Your task to perform on an android device: Look up the top rated 18v miter saw on Home Depot. Image 0: 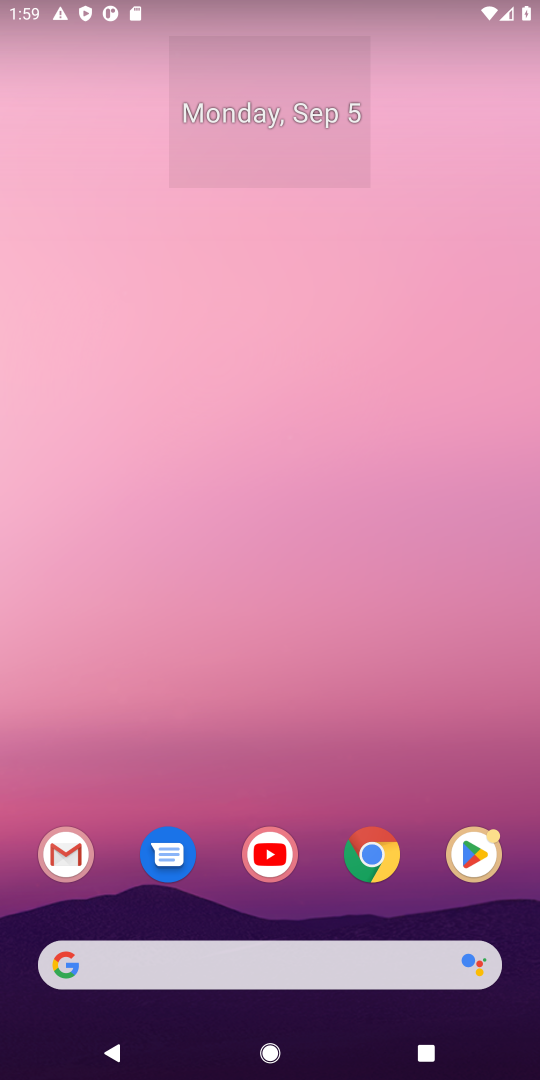
Step 0: click (373, 969)
Your task to perform on an android device: Look up the top rated 18v miter saw on Home Depot. Image 1: 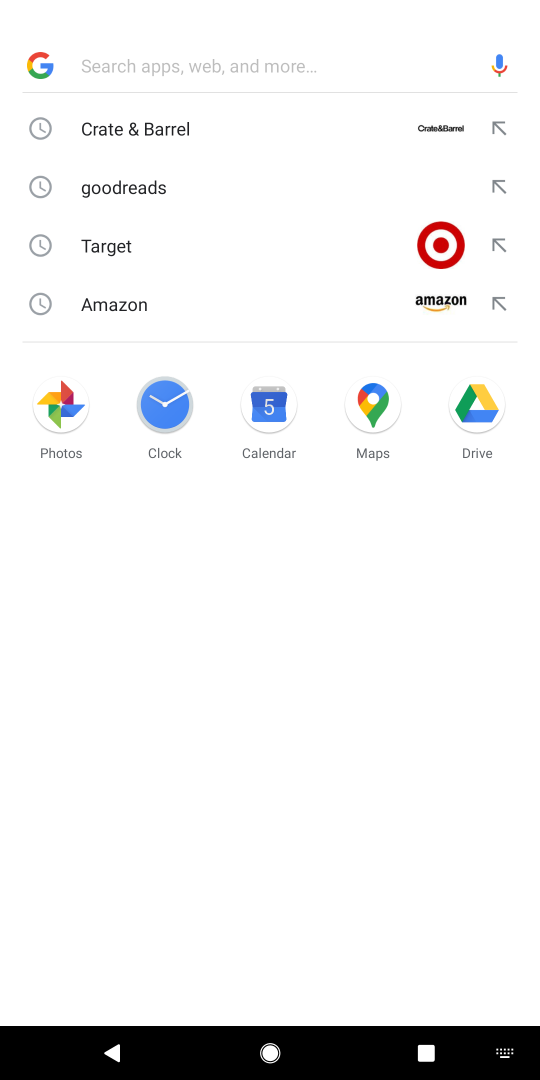
Step 1: press enter
Your task to perform on an android device: Look up the top rated 18v miter saw on Home Depot. Image 2: 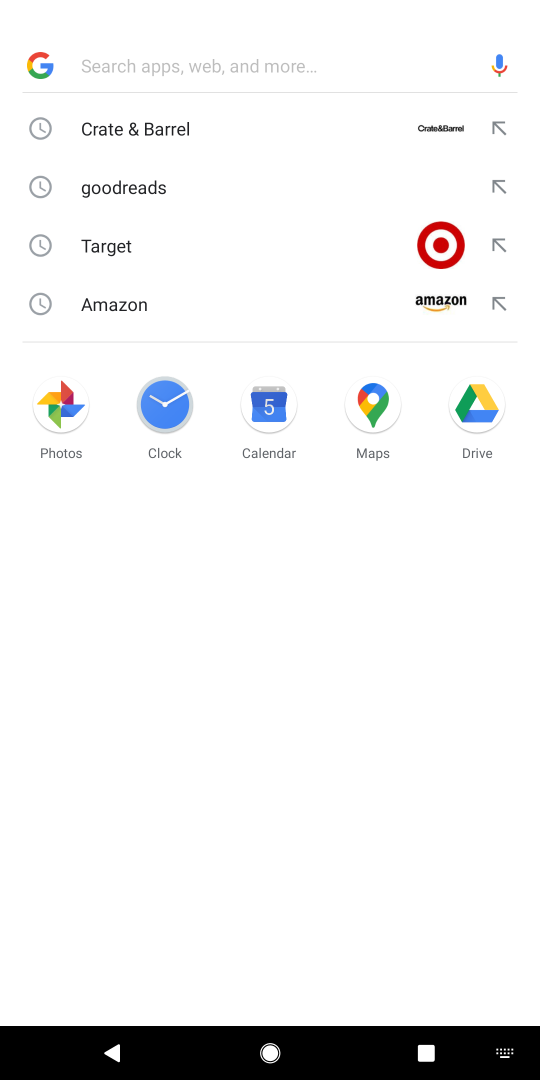
Step 2: type "home depot"
Your task to perform on an android device: Look up the top rated 18v miter saw on Home Depot. Image 3: 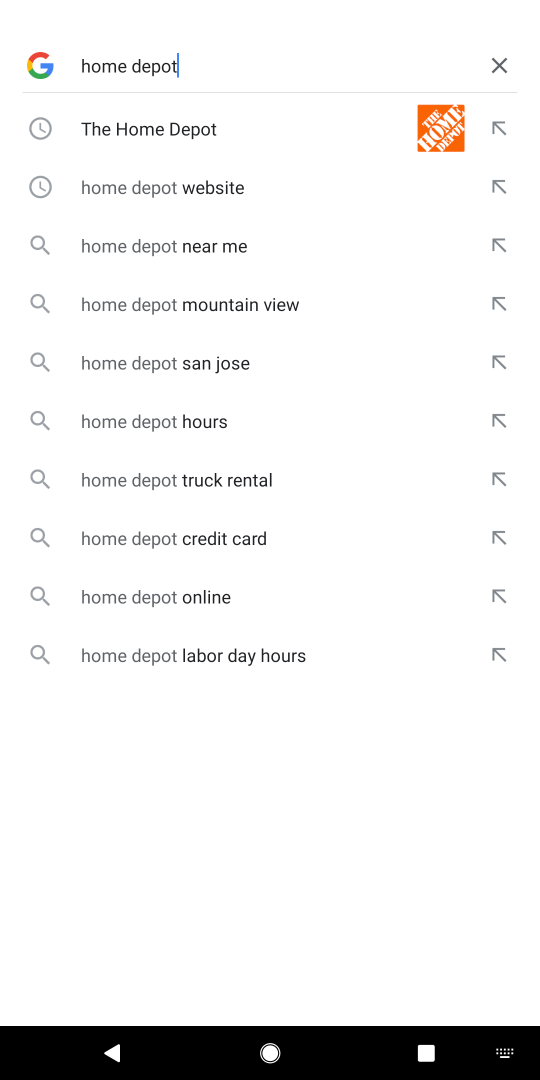
Step 3: click (191, 126)
Your task to perform on an android device: Look up the top rated 18v miter saw on Home Depot. Image 4: 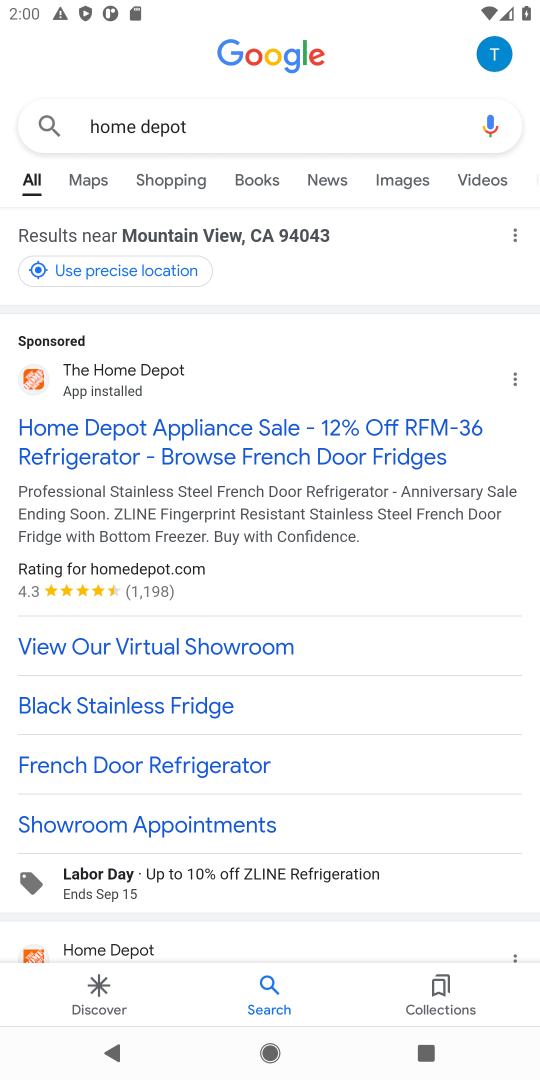
Step 4: click (250, 438)
Your task to perform on an android device: Look up the top rated 18v miter saw on Home Depot. Image 5: 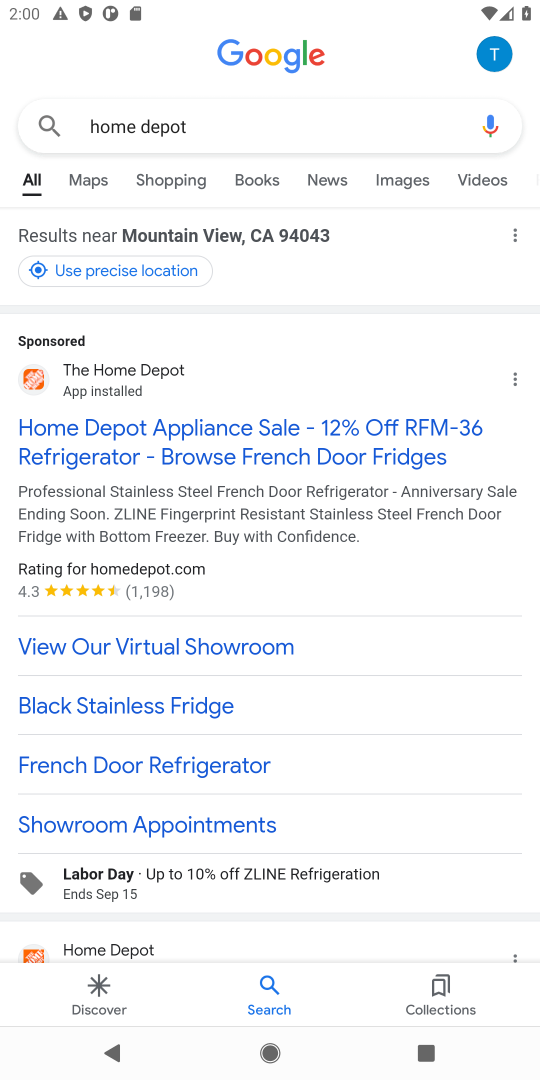
Step 5: click (264, 444)
Your task to perform on an android device: Look up the top rated 18v miter saw on Home Depot. Image 6: 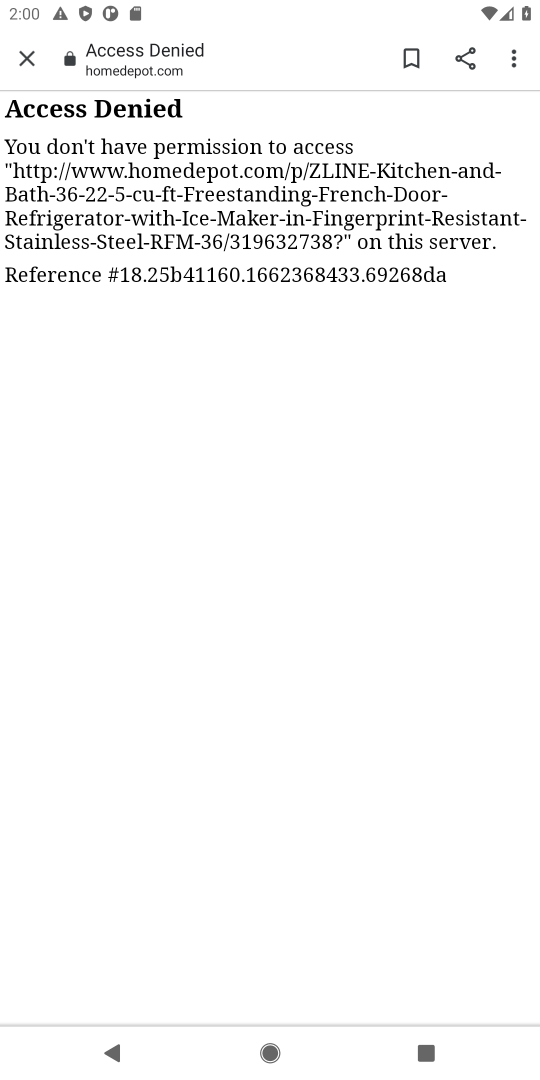
Step 6: task complete